Your task to perform on an android device: turn on the 12-hour format for clock Image 0: 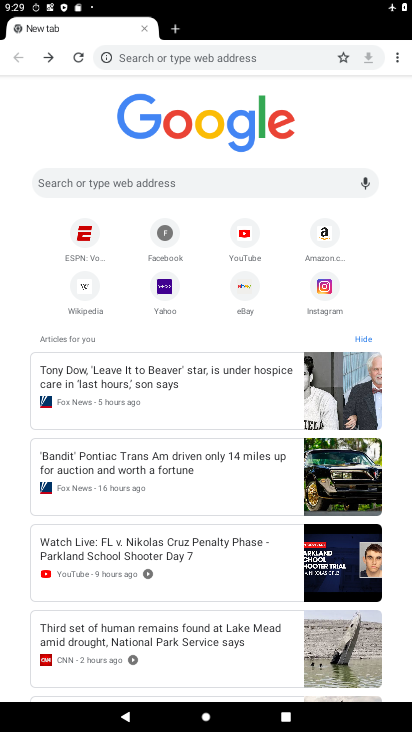
Step 0: press back button
Your task to perform on an android device: turn on the 12-hour format for clock Image 1: 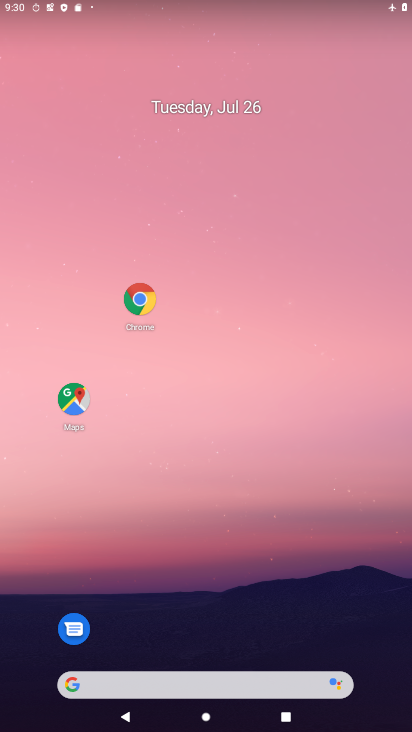
Step 1: drag from (211, 549) to (162, 70)
Your task to perform on an android device: turn on the 12-hour format for clock Image 2: 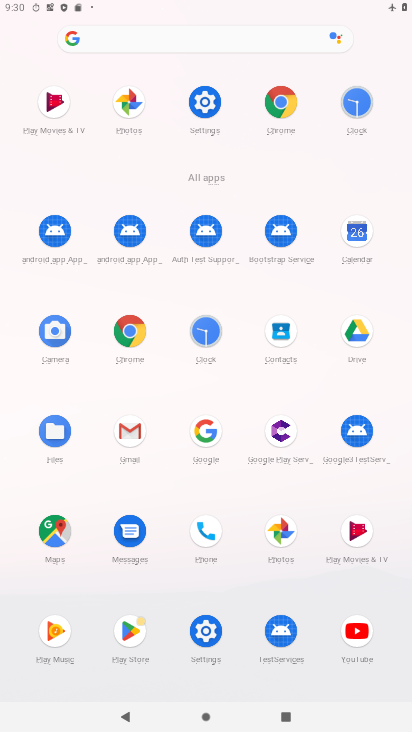
Step 2: click (209, 53)
Your task to perform on an android device: turn on the 12-hour format for clock Image 3: 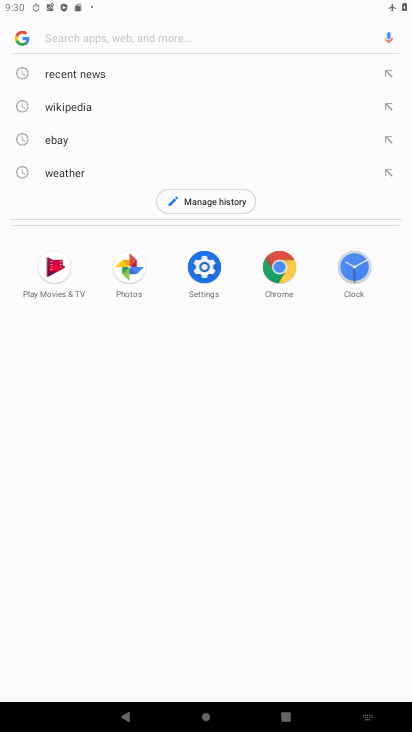
Step 3: click (344, 256)
Your task to perform on an android device: turn on the 12-hour format for clock Image 4: 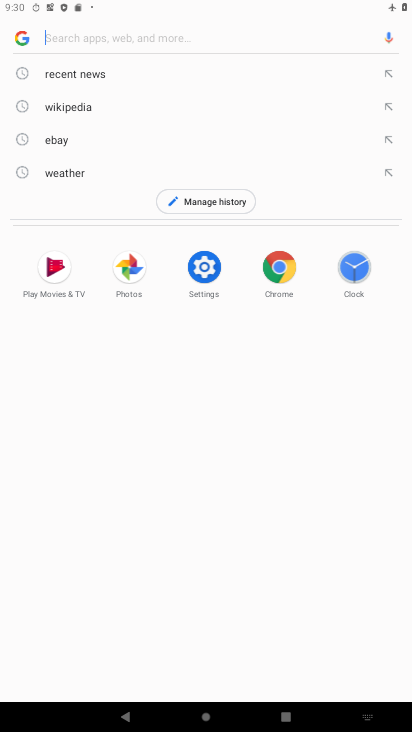
Step 4: click (347, 254)
Your task to perform on an android device: turn on the 12-hour format for clock Image 5: 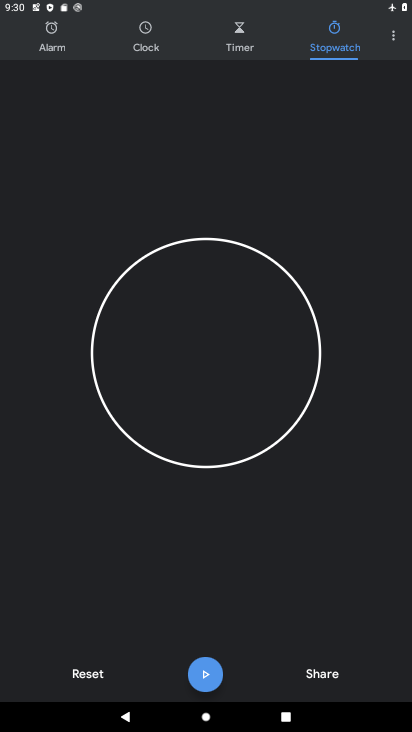
Step 5: click (394, 40)
Your task to perform on an android device: turn on the 12-hour format for clock Image 6: 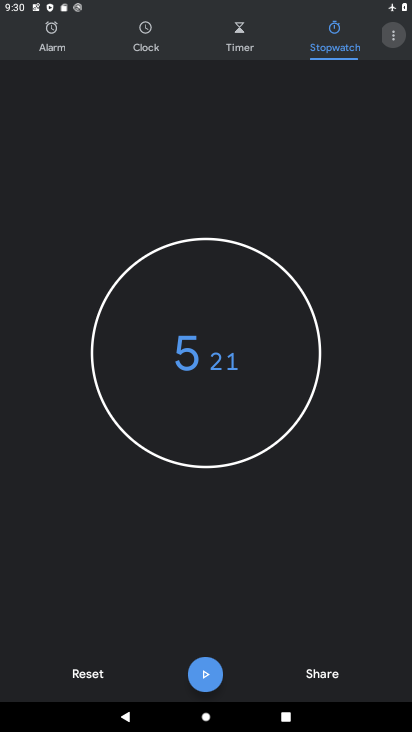
Step 6: click (394, 40)
Your task to perform on an android device: turn on the 12-hour format for clock Image 7: 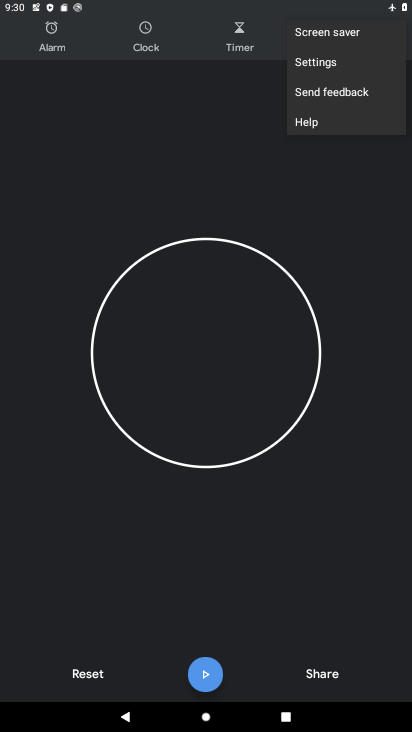
Step 7: click (394, 40)
Your task to perform on an android device: turn on the 12-hour format for clock Image 8: 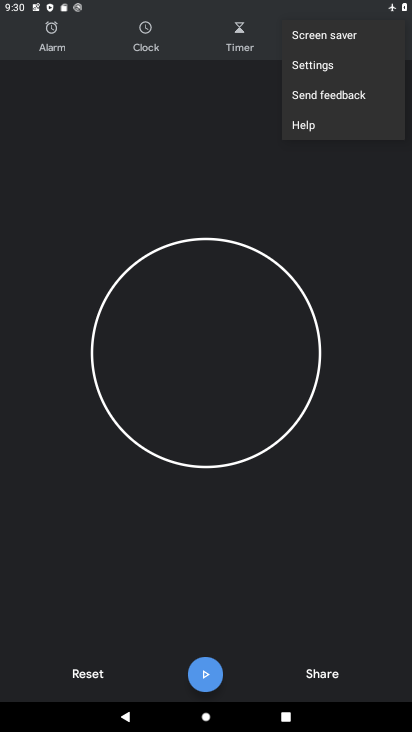
Step 8: click (309, 62)
Your task to perform on an android device: turn on the 12-hour format for clock Image 9: 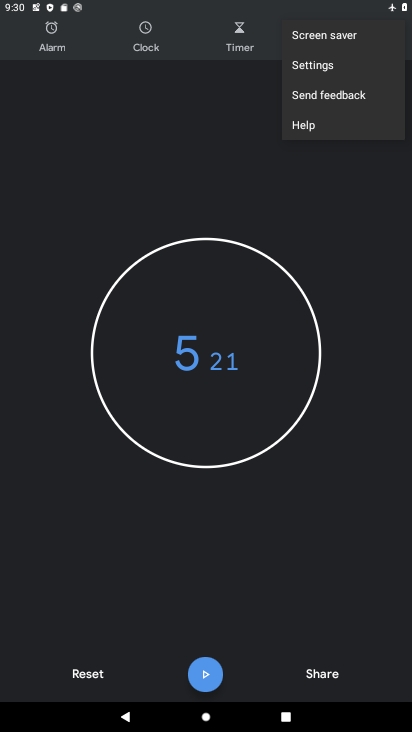
Step 9: click (325, 68)
Your task to perform on an android device: turn on the 12-hour format for clock Image 10: 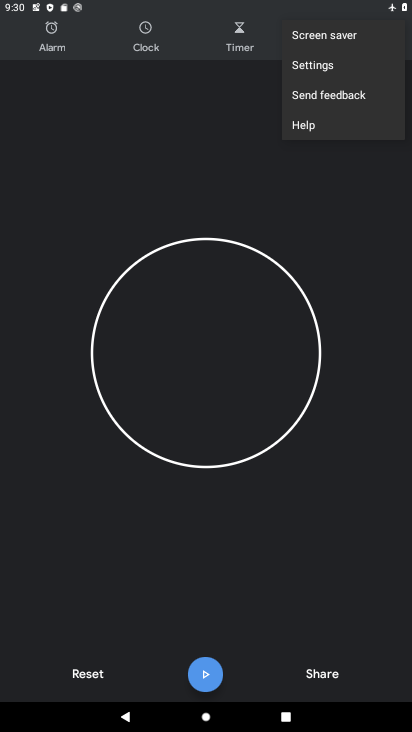
Step 10: click (328, 68)
Your task to perform on an android device: turn on the 12-hour format for clock Image 11: 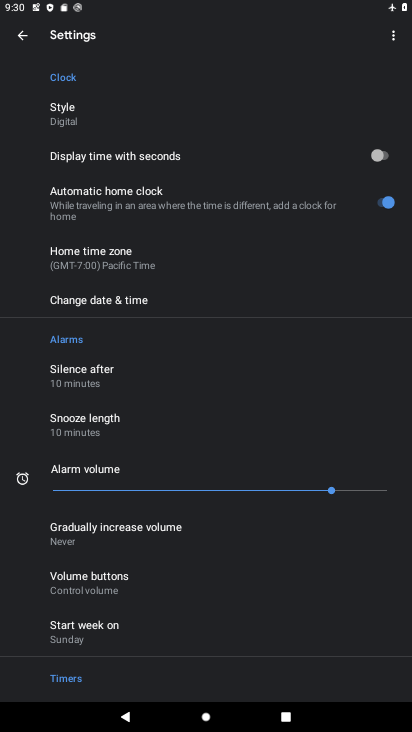
Step 11: drag from (165, 419) to (194, 34)
Your task to perform on an android device: turn on the 12-hour format for clock Image 12: 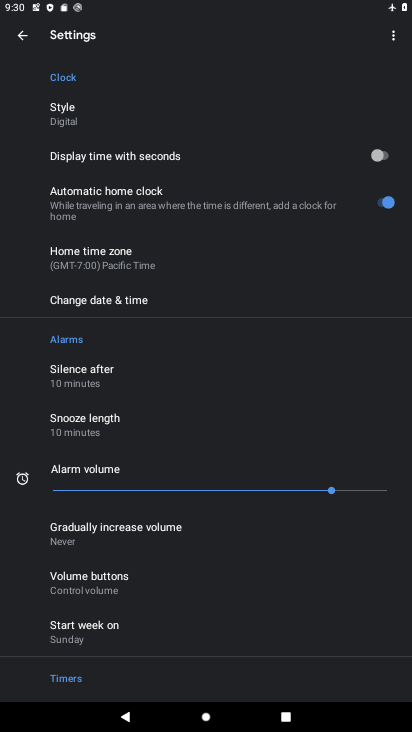
Step 12: drag from (201, 327) to (188, 147)
Your task to perform on an android device: turn on the 12-hour format for clock Image 13: 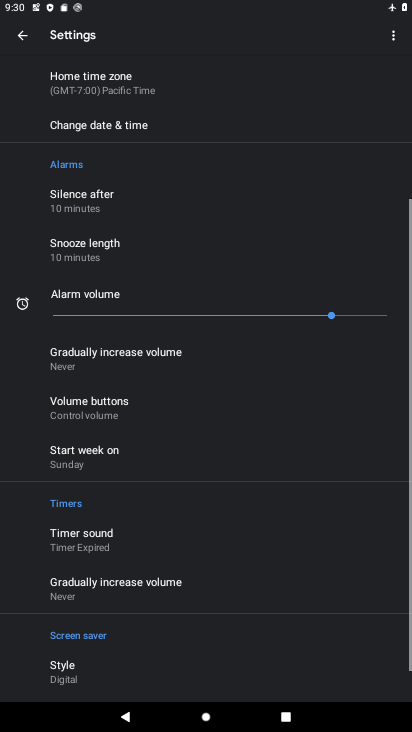
Step 13: drag from (157, 298) to (144, 130)
Your task to perform on an android device: turn on the 12-hour format for clock Image 14: 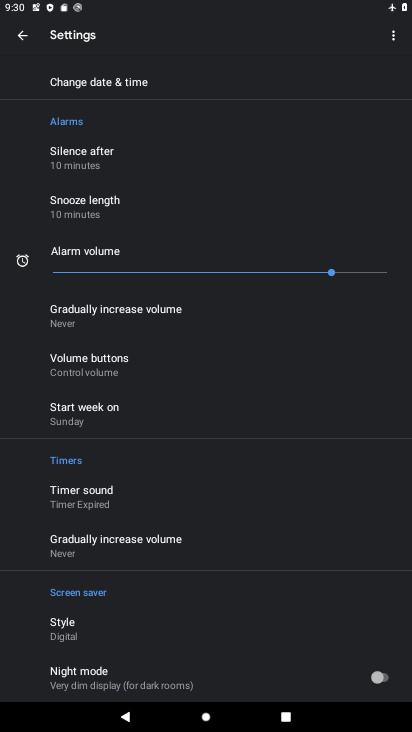
Step 14: click (107, 66)
Your task to perform on an android device: turn on the 12-hour format for clock Image 15: 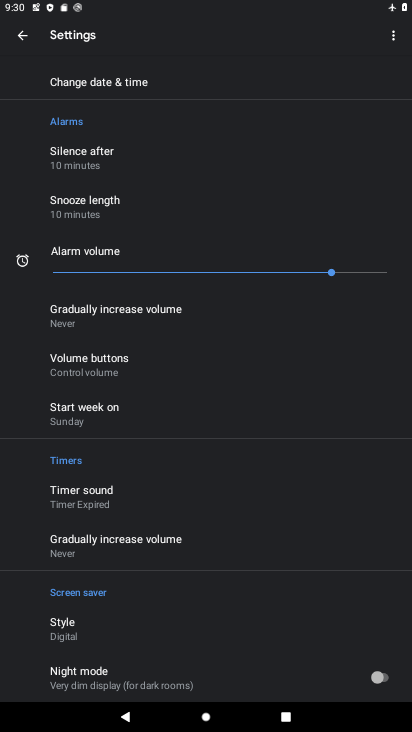
Step 15: click (104, 79)
Your task to perform on an android device: turn on the 12-hour format for clock Image 16: 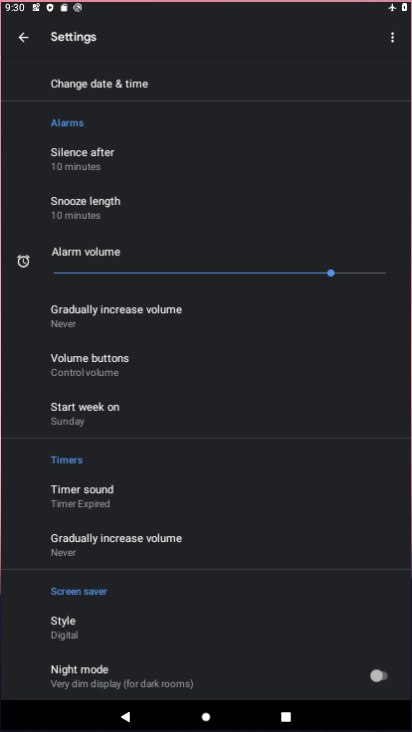
Step 16: click (104, 79)
Your task to perform on an android device: turn on the 12-hour format for clock Image 17: 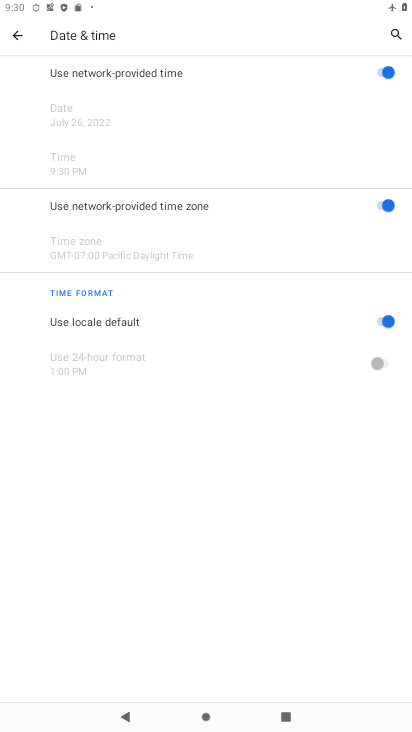
Step 17: task complete